Your task to perform on an android device: Go to Reddit.com Image 0: 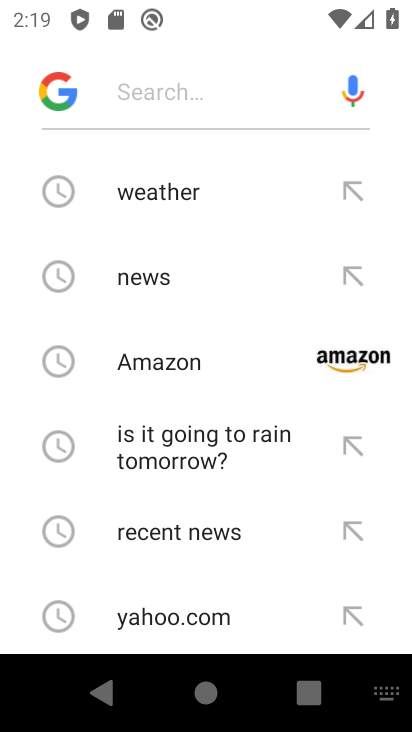
Step 0: press home button
Your task to perform on an android device: Go to Reddit.com Image 1: 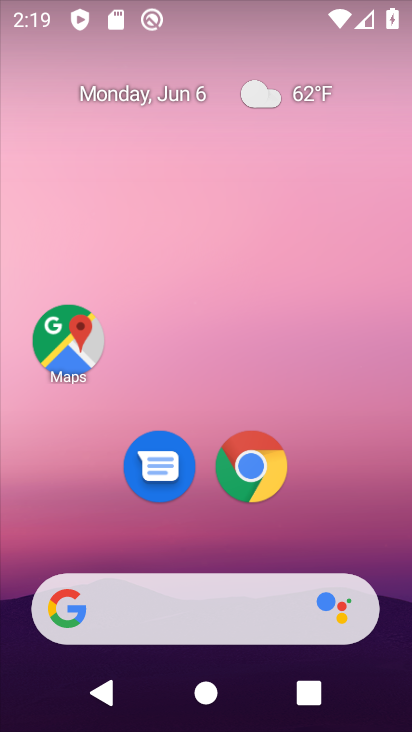
Step 1: click (267, 454)
Your task to perform on an android device: Go to Reddit.com Image 2: 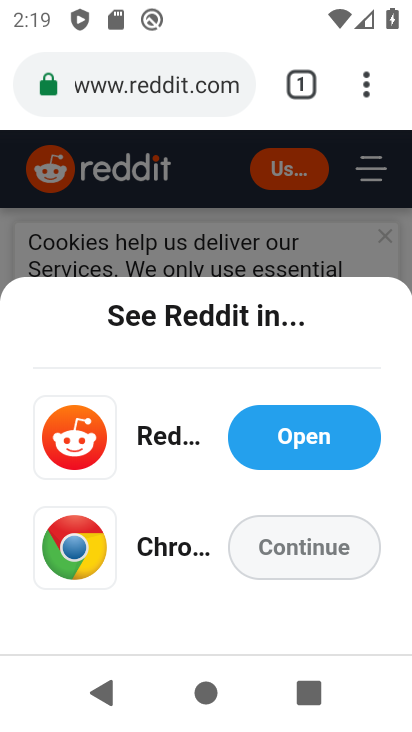
Step 2: task complete